Your task to perform on an android device: Search for the best rated headphones on Amazon Image 0: 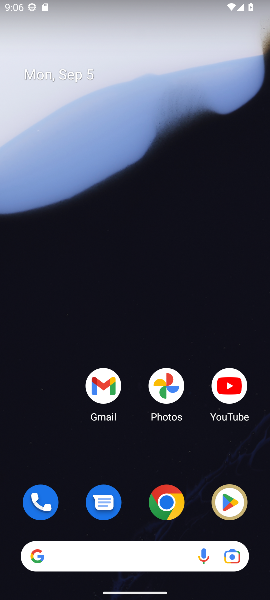
Step 0: drag from (261, 498) to (213, 26)
Your task to perform on an android device: Search for the best rated headphones on Amazon Image 1: 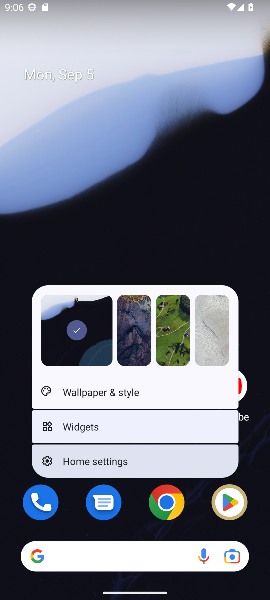
Step 1: click (216, 182)
Your task to perform on an android device: Search for the best rated headphones on Amazon Image 2: 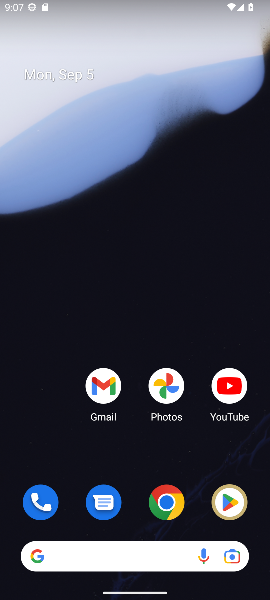
Step 2: drag from (261, 464) to (183, 41)
Your task to perform on an android device: Search for the best rated headphones on Amazon Image 3: 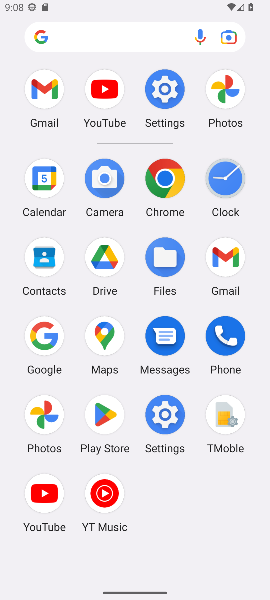
Step 3: click (45, 340)
Your task to perform on an android device: Search for the best rated headphones on Amazon Image 4: 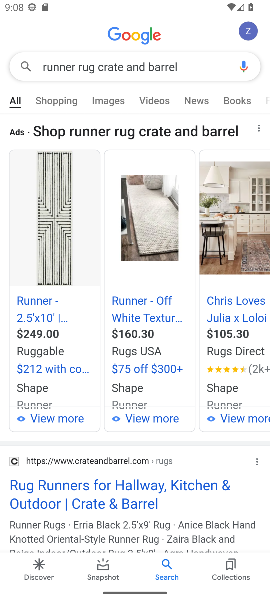
Step 4: press back button
Your task to perform on an android device: Search for the best rated headphones on Amazon Image 5: 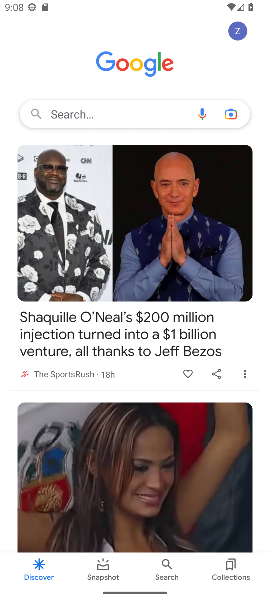
Step 5: click (57, 110)
Your task to perform on an android device: Search for the best rated headphones on Amazon Image 6: 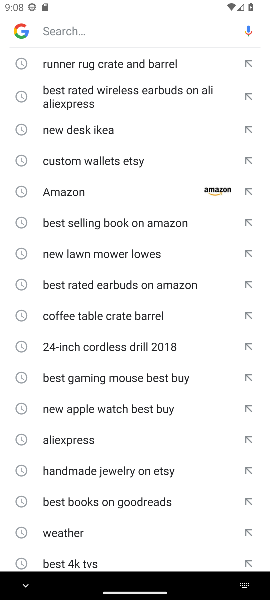
Step 6: type "best rated headphones on Amazon"
Your task to perform on an android device: Search for the best rated headphones on Amazon Image 7: 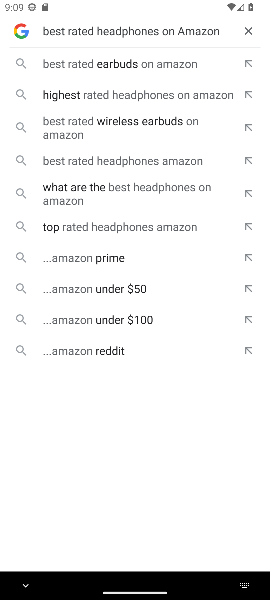
Step 7: click (110, 68)
Your task to perform on an android device: Search for the best rated headphones on Amazon Image 8: 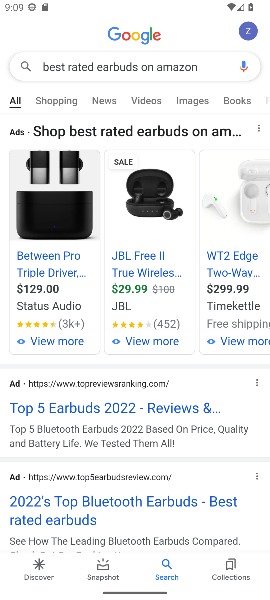
Step 8: task complete